Your task to perform on an android device: search for console tables on article.com Image 0: 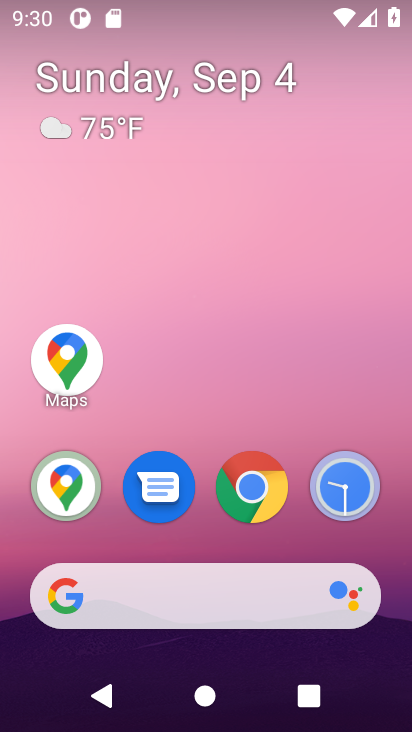
Step 0: click (269, 491)
Your task to perform on an android device: search for console tables on article.com Image 1: 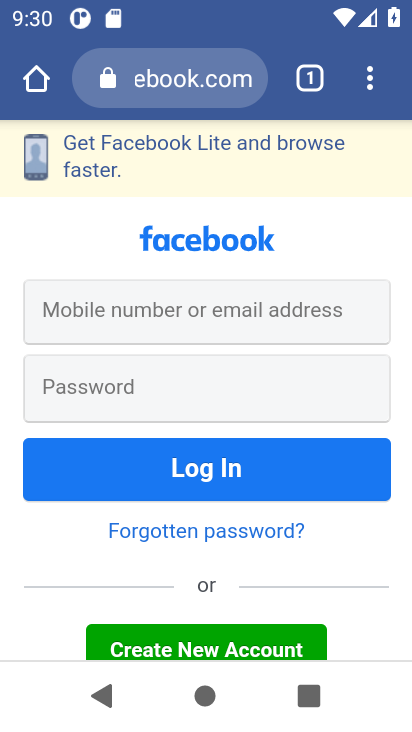
Step 1: task complete